Your task to perform on an android device: Open the calendar app, open the side menu, and click the "Day" option Image 0: 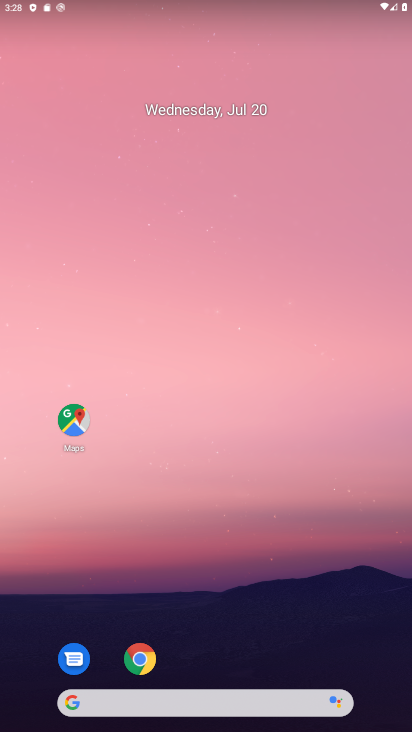
Step 0: drag from (174, 623) to (197, 156)
Your task to perform on an android device: Open the calendar app, open the side menu, and click the "Day" option Image 1: 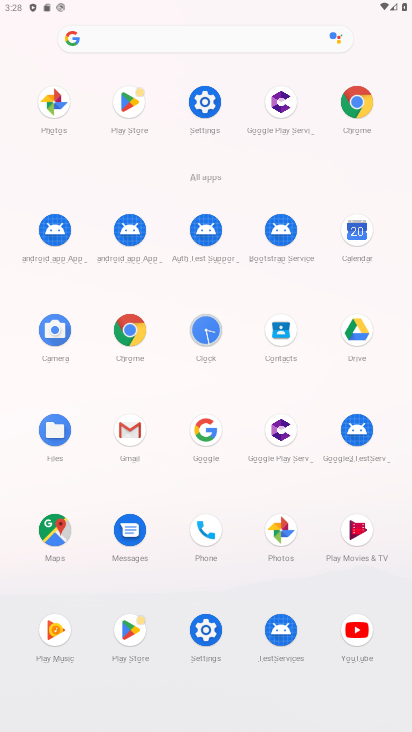
Step 1: click (359, 230)
Your task to perform on an android device: Open the calendar app, open the side menu, and click the "Day" option Image 2: 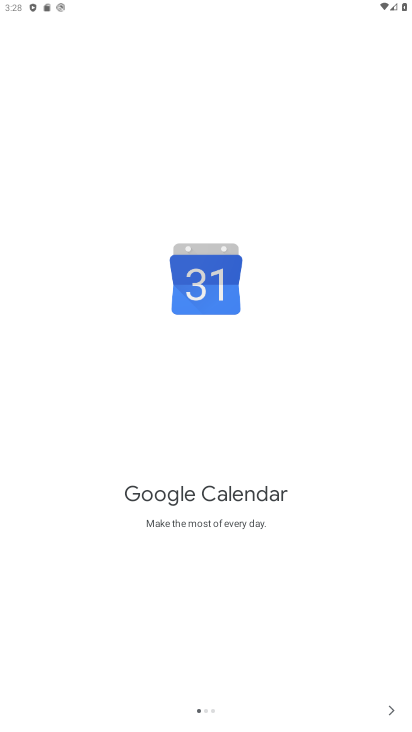
Step 2: click (386, 711)
Your task to perform on an android device: Open the calendar app, open the side menu, and click the "Day" option Image 3: 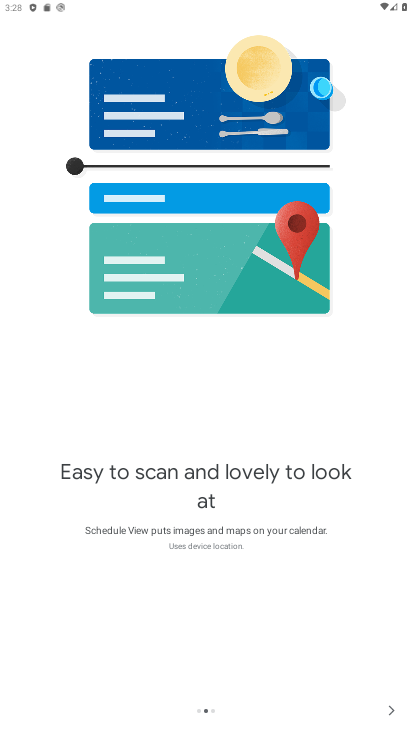
Step 3: click (386, 711)
Your task to perform on an android device: Open the calendar app, open the side menu, and click the "Day" option Image 4: 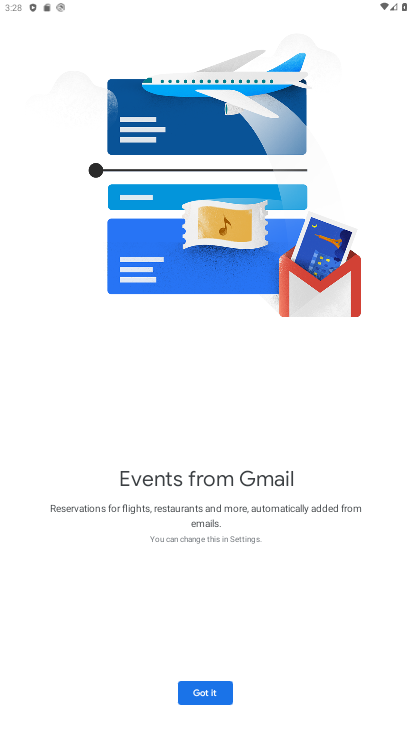
Step 4: click (386, 711)
Your task to perform on an android device: Open the calendar app, open the side menu, and click the "Day" option Image 5: 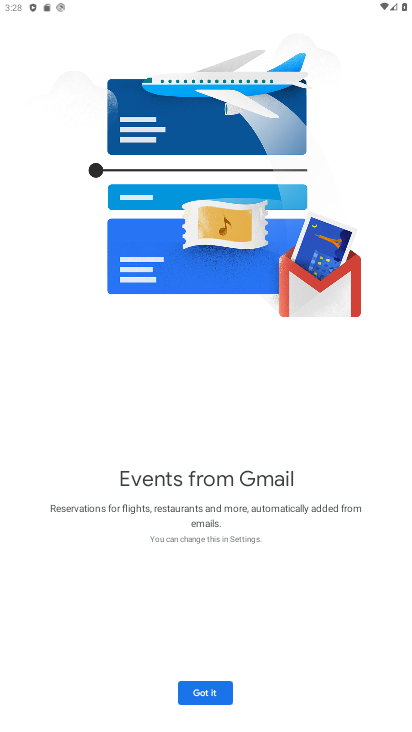
Step 5: click (191, 684)
Your task to perform on an android device: Open the calendar app, open the side menu, and click the "Day" option Image 6: 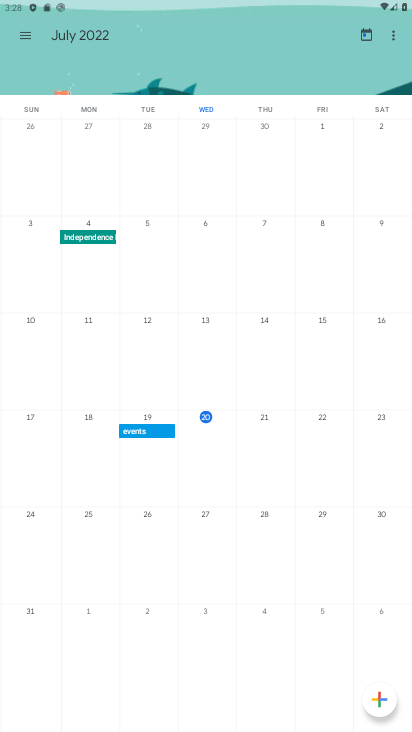
Step 6: click (31, 36)
Your task to perform on an android device: Open the calendar app, open the side menu, and click the "Day" option Image 7: 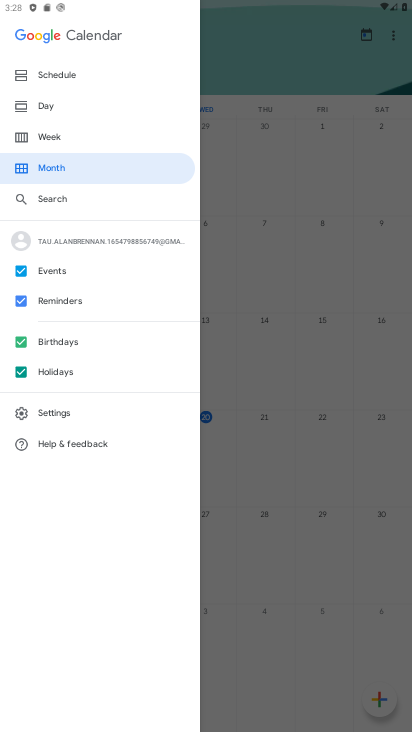
Step 7: click (39, 100)
Your task to perform on an android device: Open the calendar app, open the side menu, and click the "Day" option Image 8: 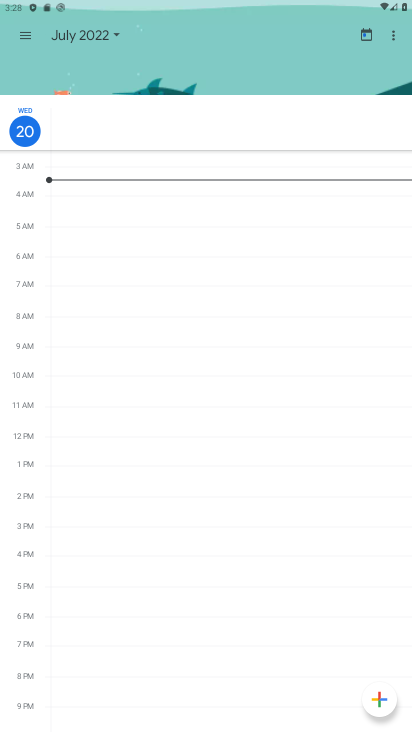
Step 8: task complete